Your task to perform on an android device: Open Google Chrome and open the bookmarks view Image 0: 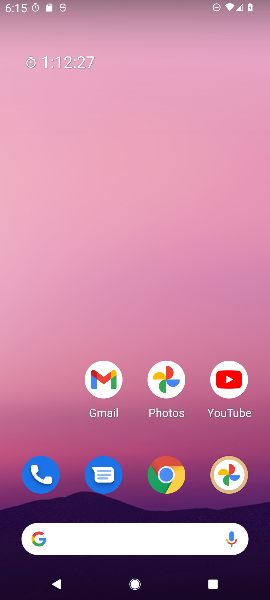
Step 0: press home button
Your task to perform on an android device: Open Google Chrome and open the bookmarks view Image 1: 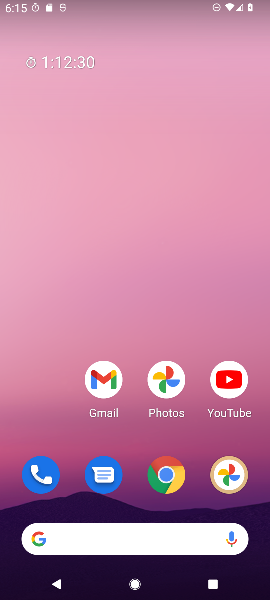
Step 1: drag from (63, 442) to (51, 191)
Your task to perform on an android device: Open Google Chrome and open the bookmarks view Image 2: 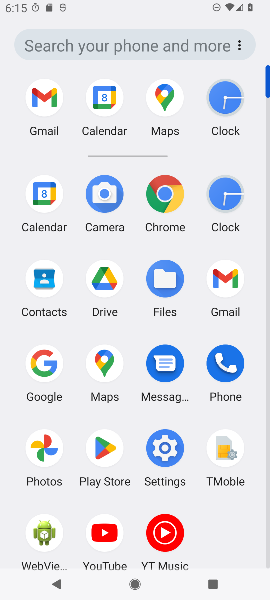
Step 2: click (164, 186)
Your task to perform on an android device: Open Google Chrome and open the bookmarks view Image 3: 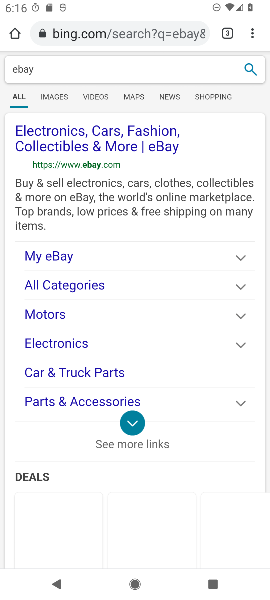
Step 3: click (252, 33)
Your task to perform on an android device: Open Google Chrome and open the bookmarks view Image 4: 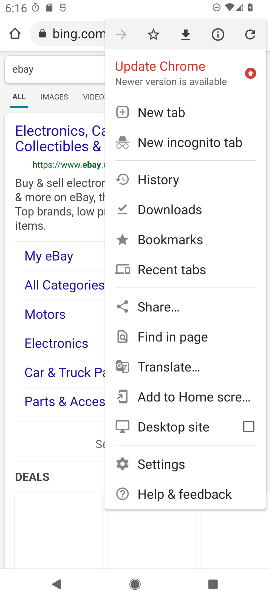
Step 4: click (188, 240)
Your task to perform on an android device: Open Google Chrome and open the bookmarks view Image 5: 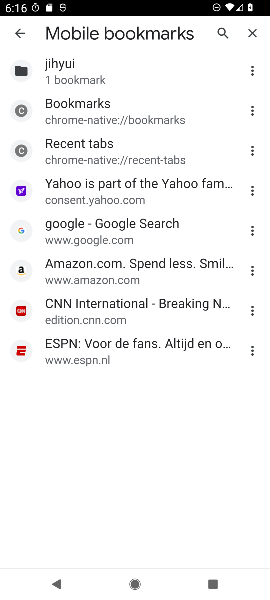
Step 5: task complete